Your task to perform on an android device: Go to settings Image 0: 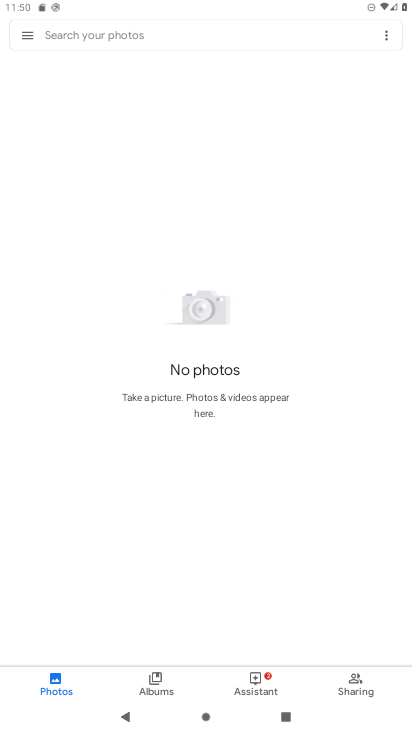
Step 0: press home button
Your task to perform on an android device: Go to settings Image 1: 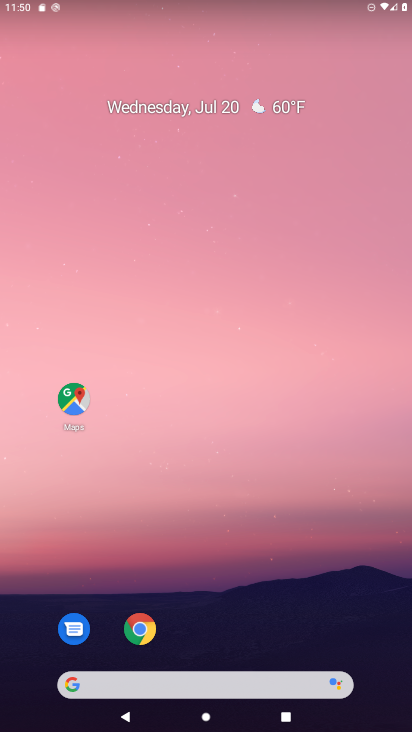
Step 1: drag from (228, 640) to (270, 87)
Your task to perform on an android device: Go to settings Image 2: 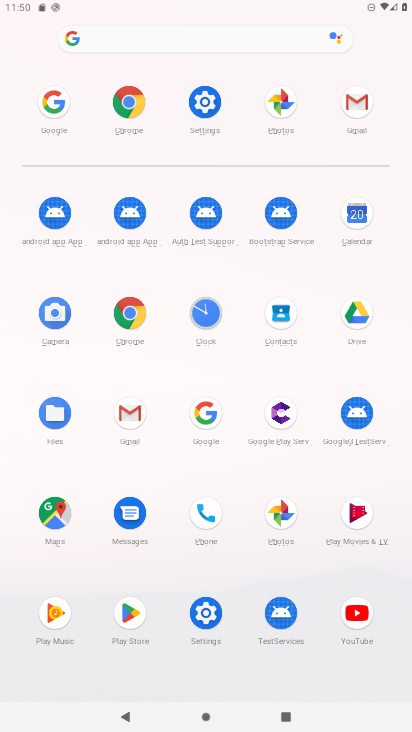
Step 2: click (198, 109)
Your task to perform on an android device: Go to settings Image 3: 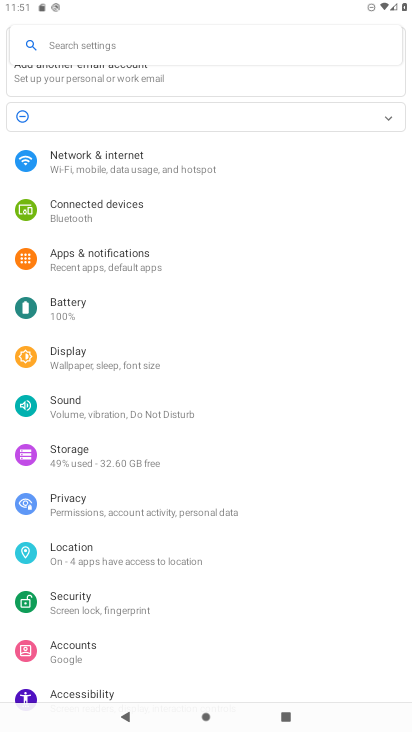
Step 3: task complete